Your task to perform on an android device: turn smart compose on in the gmail app Image 0: 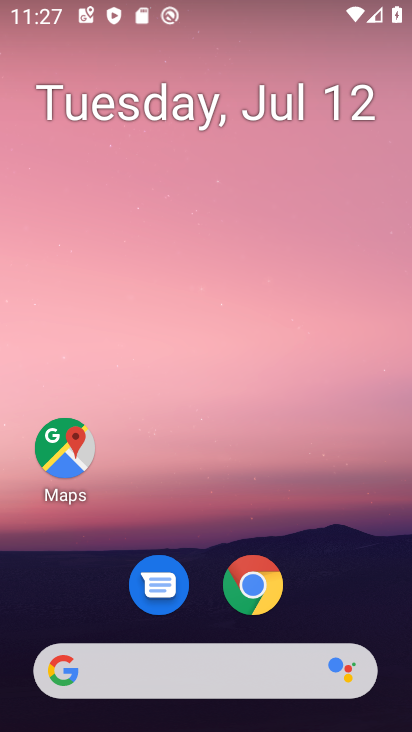
Step 0: drag from (228, 502) to (267, 7)
Your task to perform on an android device: turn smart compose on in the gmail app Image 1: 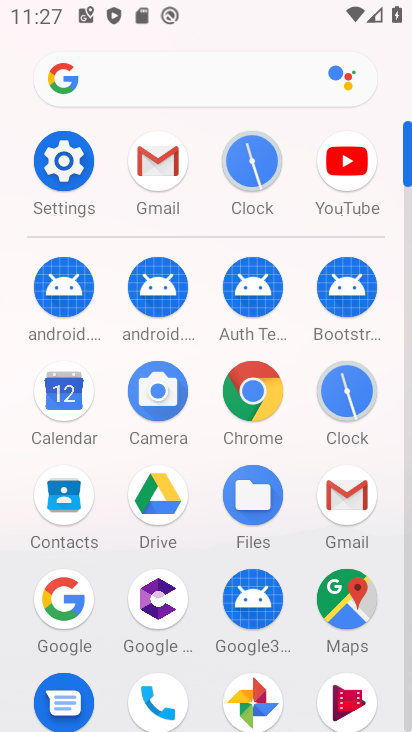
Step 1: click (165, 170)
Your task to perform on an android device: turn smart compose on in the gmail app Image 2: 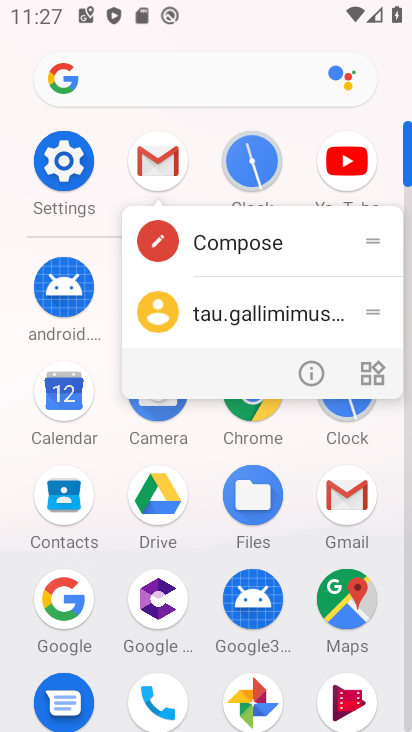
Step 2: click (164, 168)
Your task to perform on an android device: turn smart compose on in the gmail app Image 3: 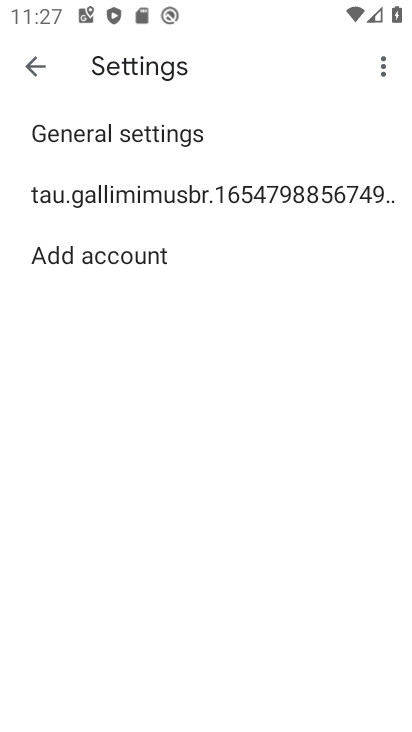
Step 3: click (165, 183)
Your task to perform on an android device: turn smart compose on in the gmail app Image 4: 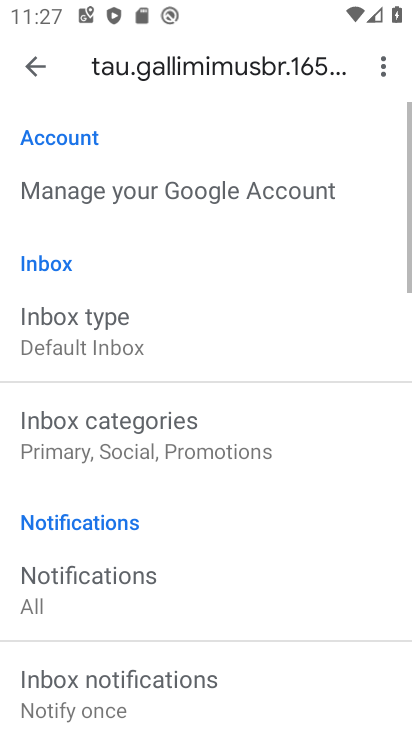
Step 4: task complete